Your task to perform on an android device: open app "Yahoo Mail" Image 0: 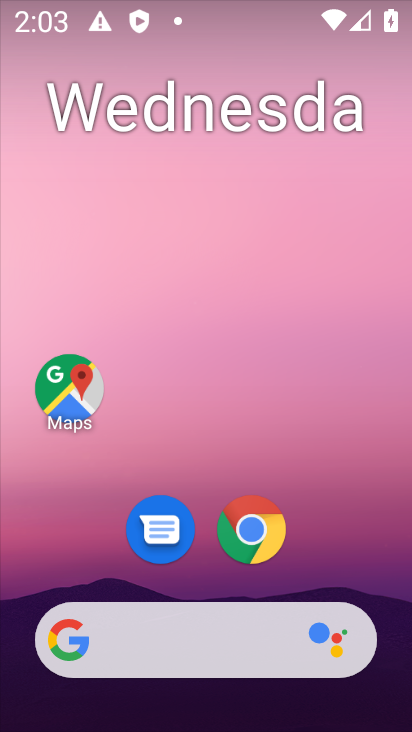
Step 0: drag from (139, 624) to (179, 57)
Your task to perform on an android device: open app "Yahoo Mail" Image 1: 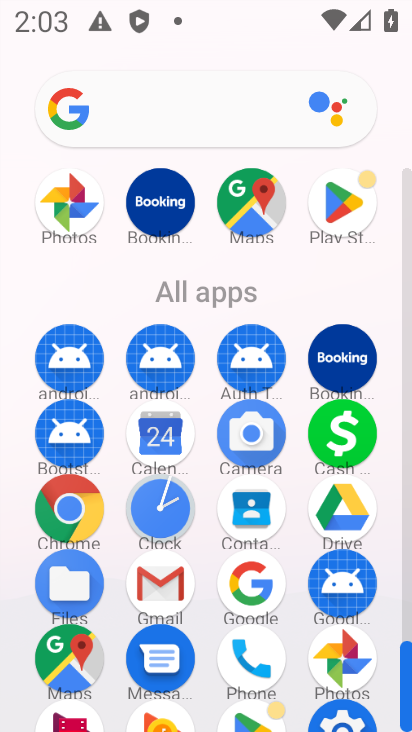
Step 1: click (339, 191)
Your task to perform on an android device: open app "Yahoo Mail" Image 2: 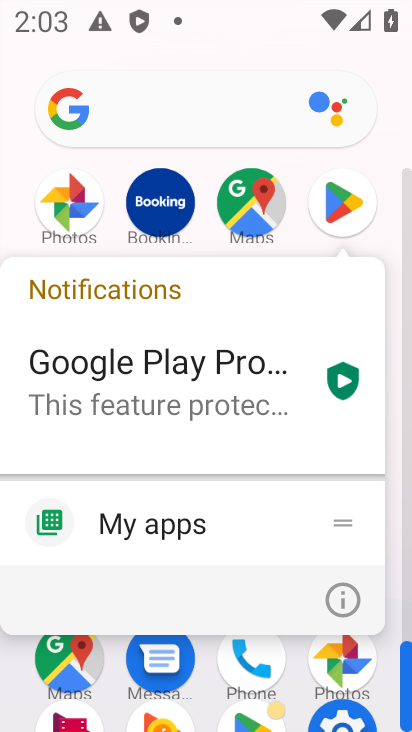
Step 2: click (347, 218)
Your task to perform on an android device: open app "Yahoo Mail" Image 3: 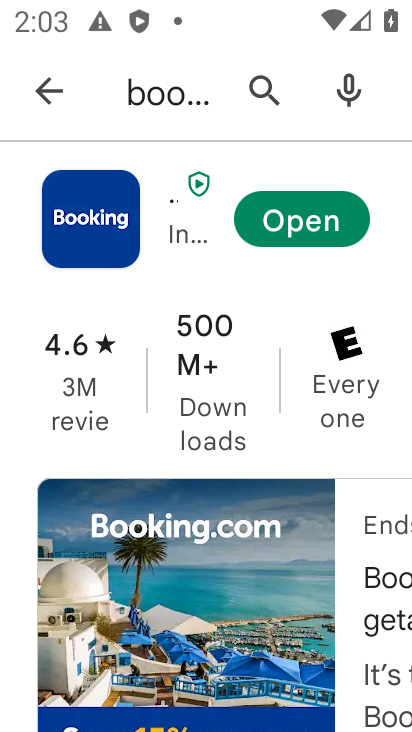
Step 3: click (261, 95)
Your task to perform on an android device: open app "Yahoo Mail" Image 4: 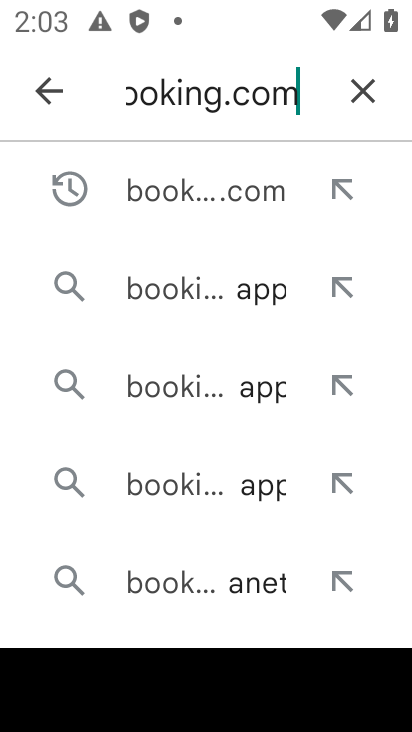
Step 4: click (363, 88)
Your task to perform on an android device: open app "Yahoo Mail" Image 5: 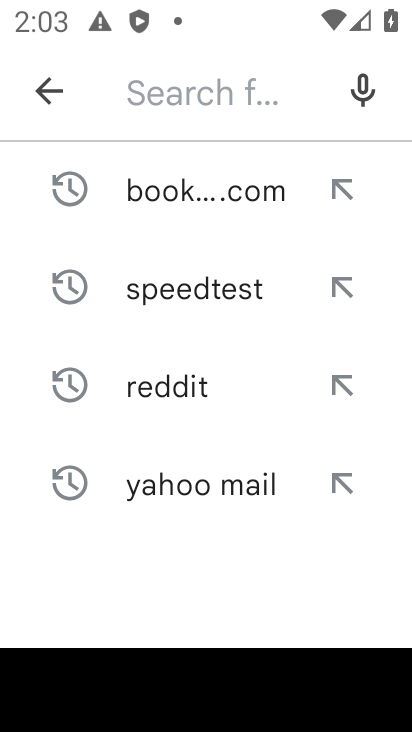
Step 5: type "yahoo mail"
Your task to perform on an android device: open app "Yahoo Mail" Image 6: 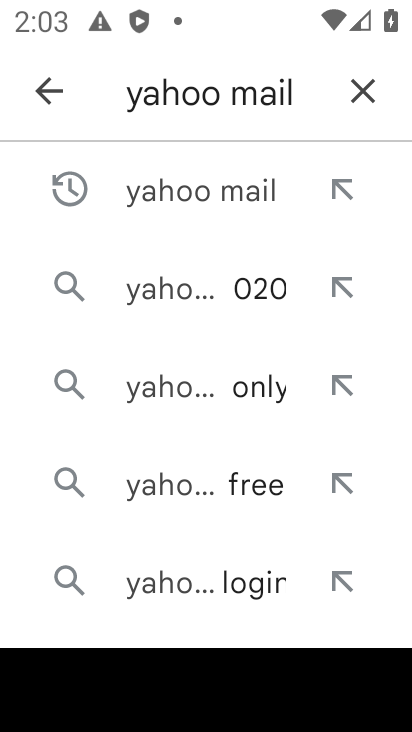
Step 6: click (205, 203)
Your task to perform on an android device: open app "Yahoo Mail" Image 7: 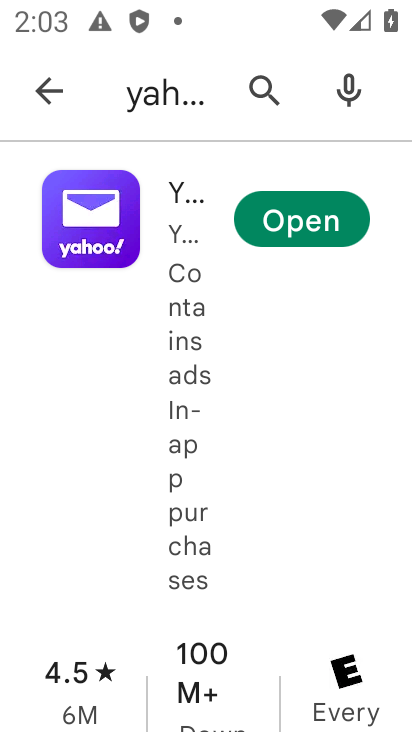
Step 7: click (319, 222)
Your task to perform on an android device: open app "Yahoo Mail" Image 8: 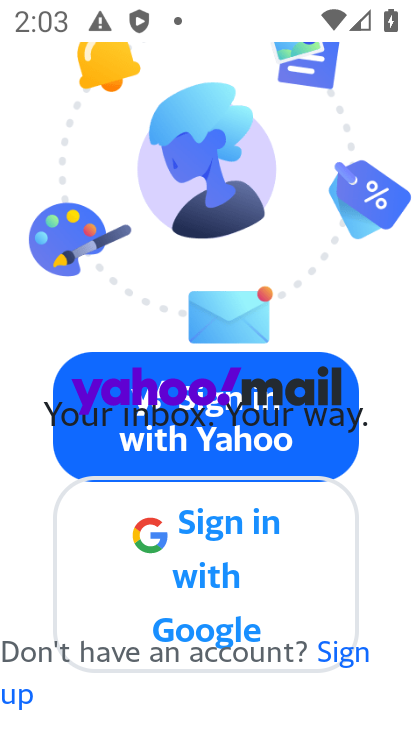
Step 8: task complete